Your task to perform on an android device: Go to CNN.com Image 0: 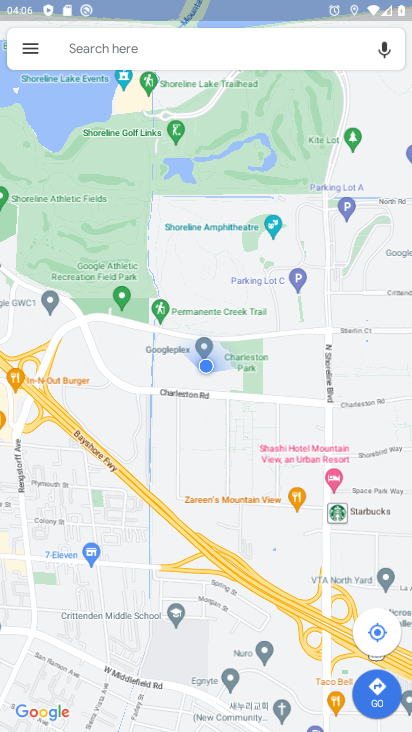
Step 0: press home button
Your task to perform on an android device: Go to CNN.com Image 1: 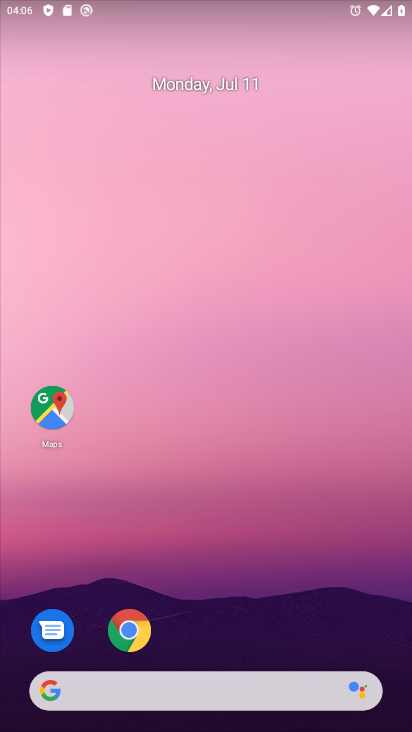
Step 1: drag from (210, 655) to (234, 83)
Your task to perform on an android device: Go to CNN.com Image 2: 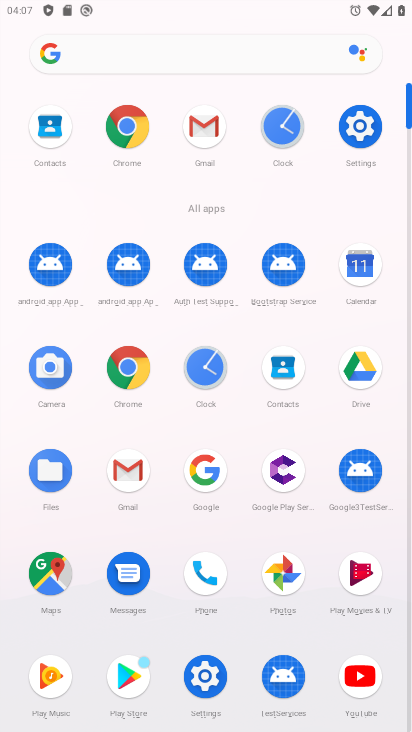
Step 2: click (122, 122)
Your task to perform on an android device: Go to CNN.com Image 3: 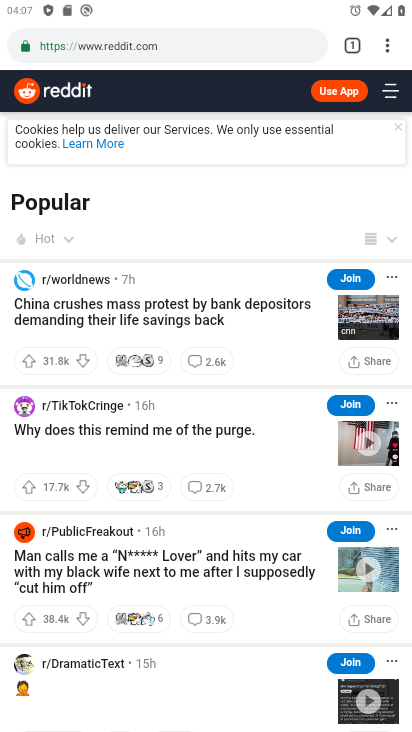
Step 3: click (354, 45)
Your task to perform on an android device: Go to CNN.com Image 4: 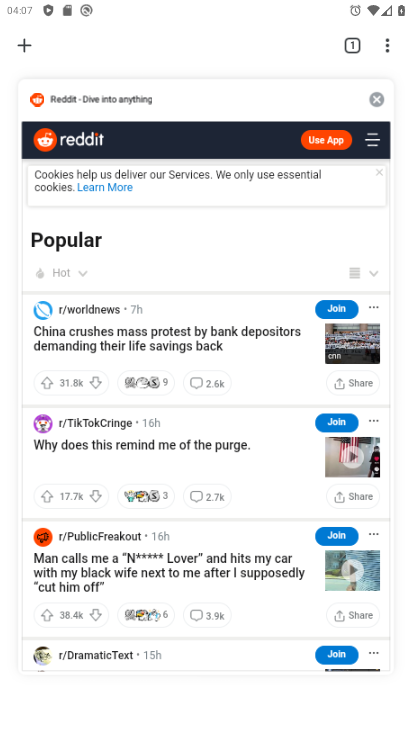
Step 4: click (26, 42)
Your task to perform on an android device: Go to CNN.com Image 5: 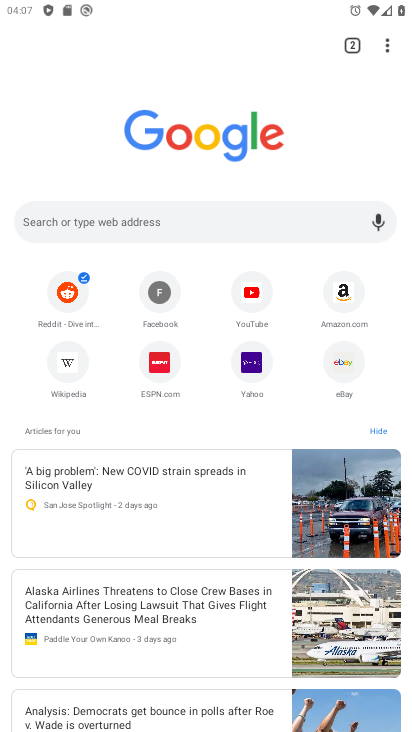
Step 5: click (126, 219)
Your task to perform on an android device: Go to CNN.com Image 6: 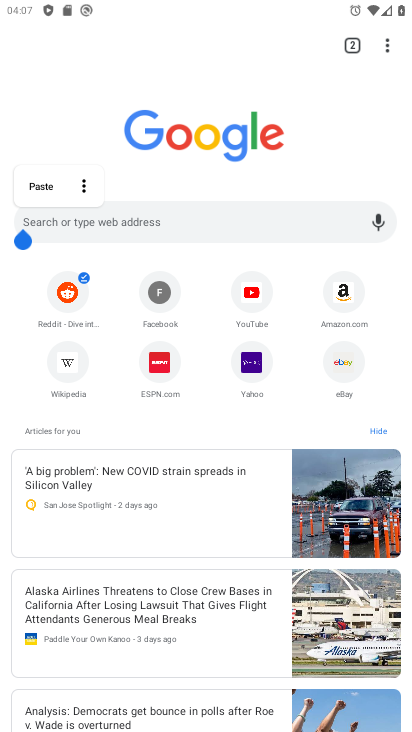
Step 6: click (79, 224)
Your task to perform on an android device: Go to CNN.com Image 7: 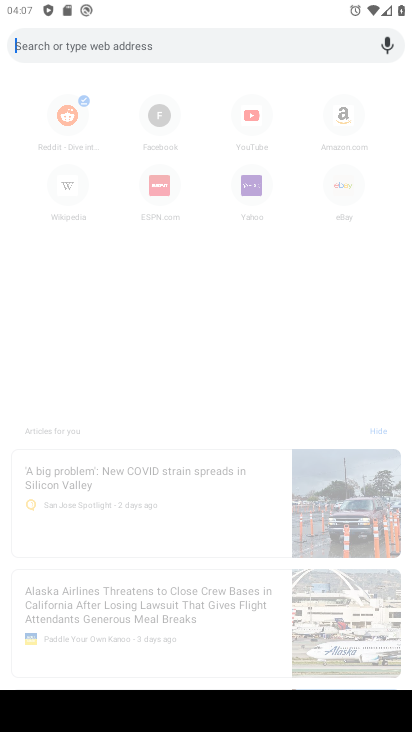
Step 7: type "cnn.com"
Your task to perform on an android device: Go to CNN.com Image 8: 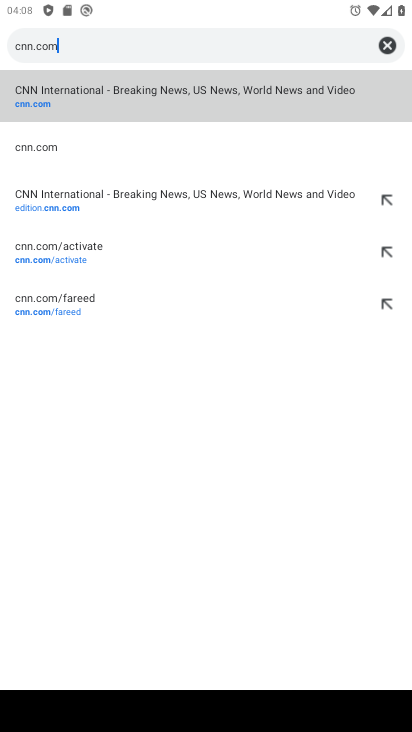
Step 8: click (65, 106)
Your task to perform on an android device: Go to CNN.com Image 9: 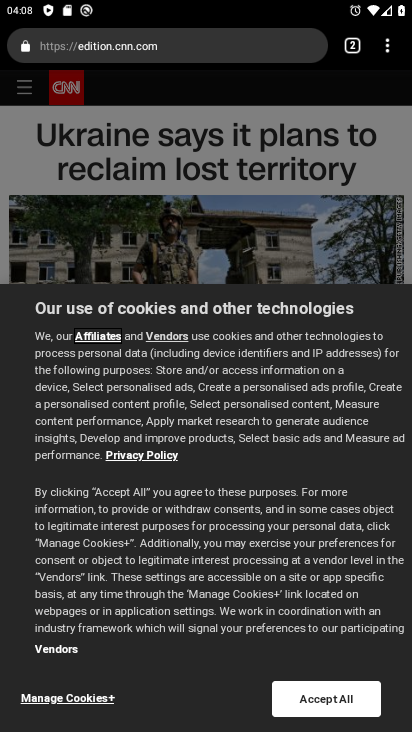
Step 9: click (329, 701)
Your task to perform on an android device: Go to CNN.com Image 10: 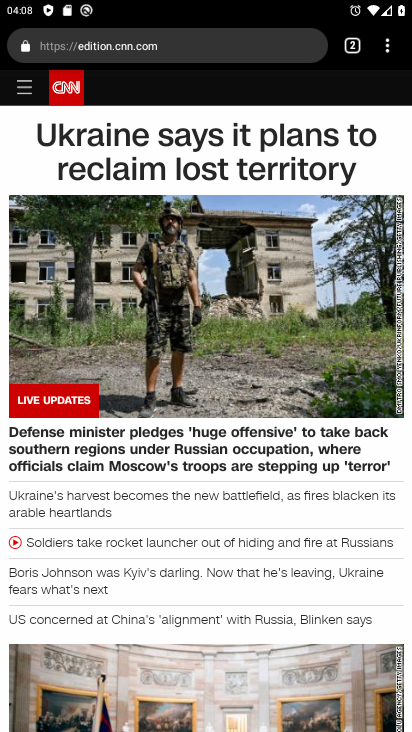
Step 10: task complete